Your task to perform on an android device: turn on bluetooth scan Image 0: 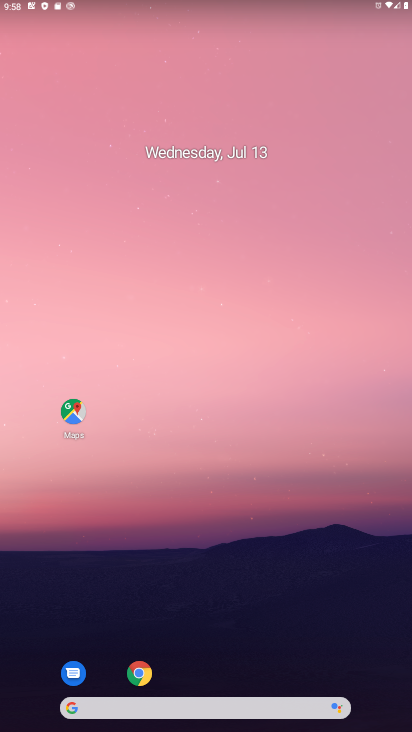
Step 0: drag from (183, 680) to (217, 69)
Your task to perform on an android device: turn on bluetooth scan Image 1: 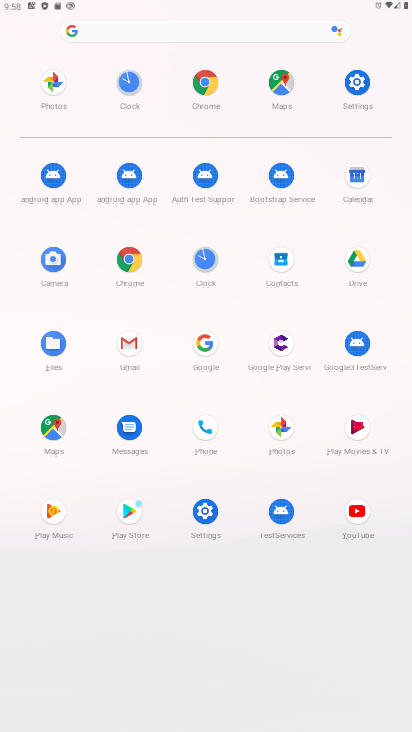
Step 1: click (355, 98)
Your task to perform on an android device: turn on bluetooth scan Image 2: 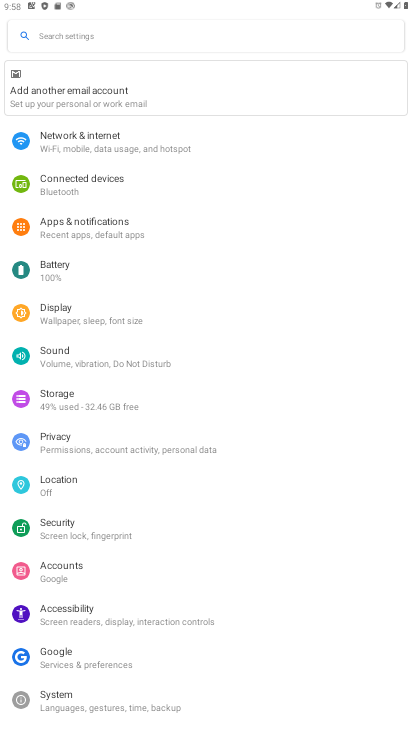
Step 2: click (42, 479)
Your task to perform on an android device: turn on bluetooth scan Image 3: 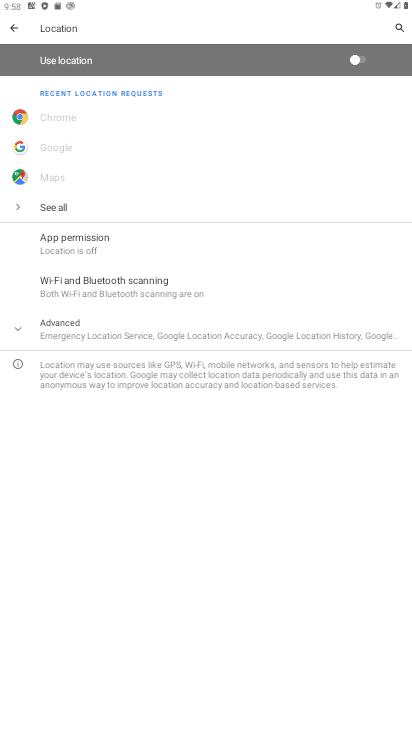
Step 3: click (113, 282)
Your task to perform on an android device: turn on bluetooth scan Image 4: 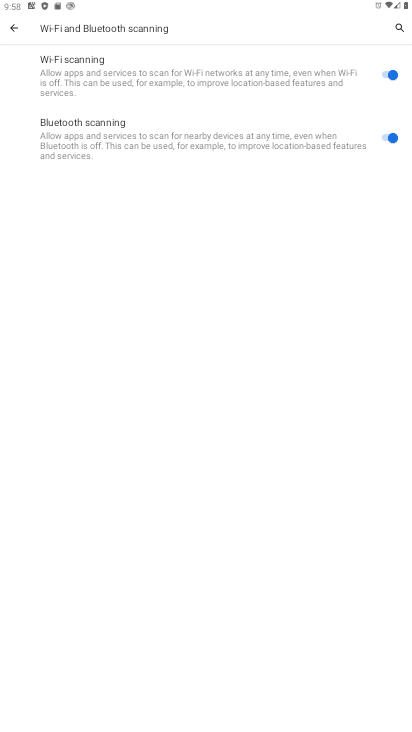
Step 4: task complete